Your task to perform on an android device: open app "Yahoo Mail" (install if not already installed) Image 0: 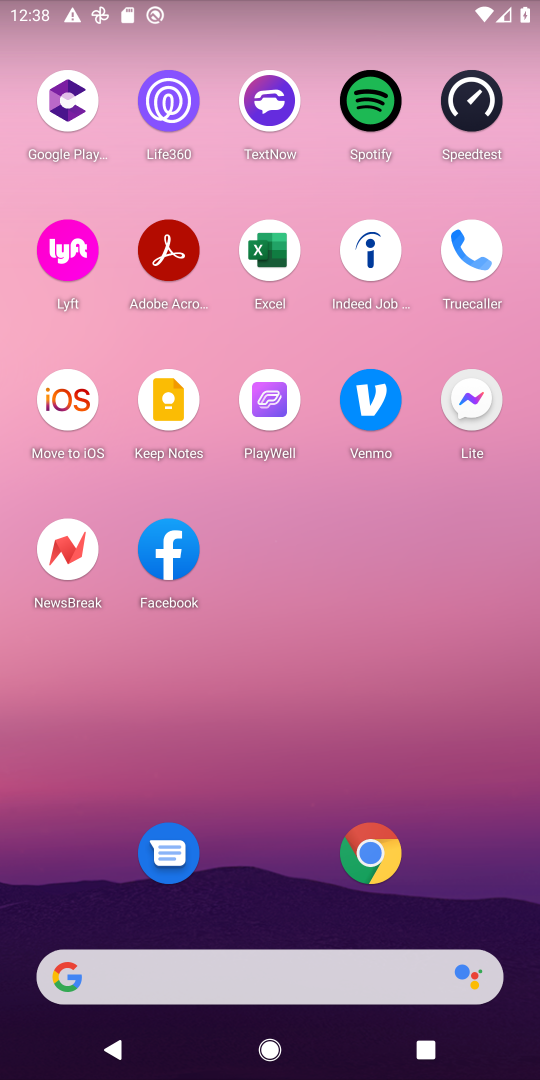
Step 0: drag from (223, 795) to (233, 45)
Your task to perform on an android device: open app "Yahoo Mail" (install if not already installed) Image 1: 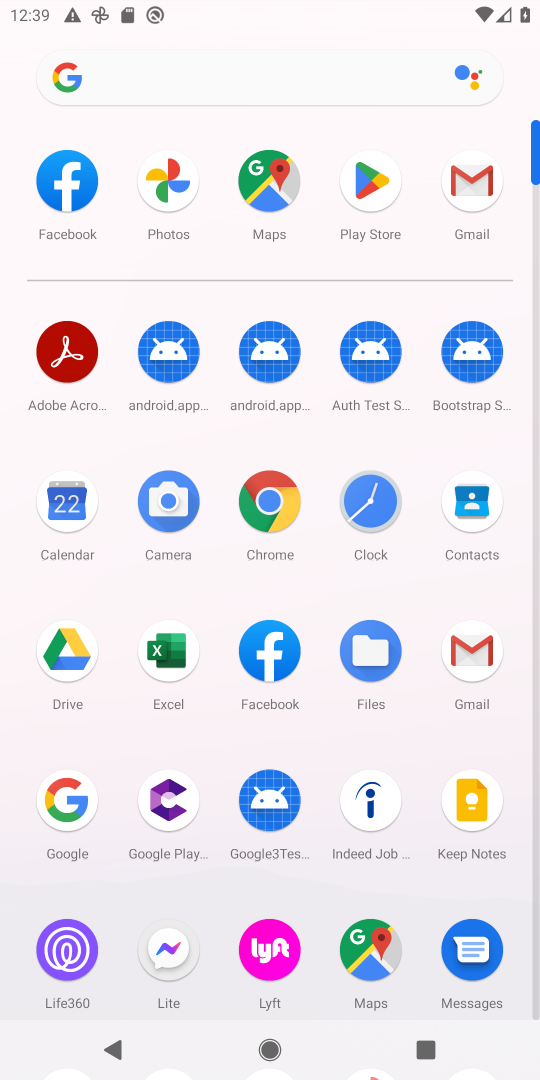
Step 1: click (385, 172)
Your task to perform on an android device: open app "Yahoo Mail" (install if not already installed) Image 2: 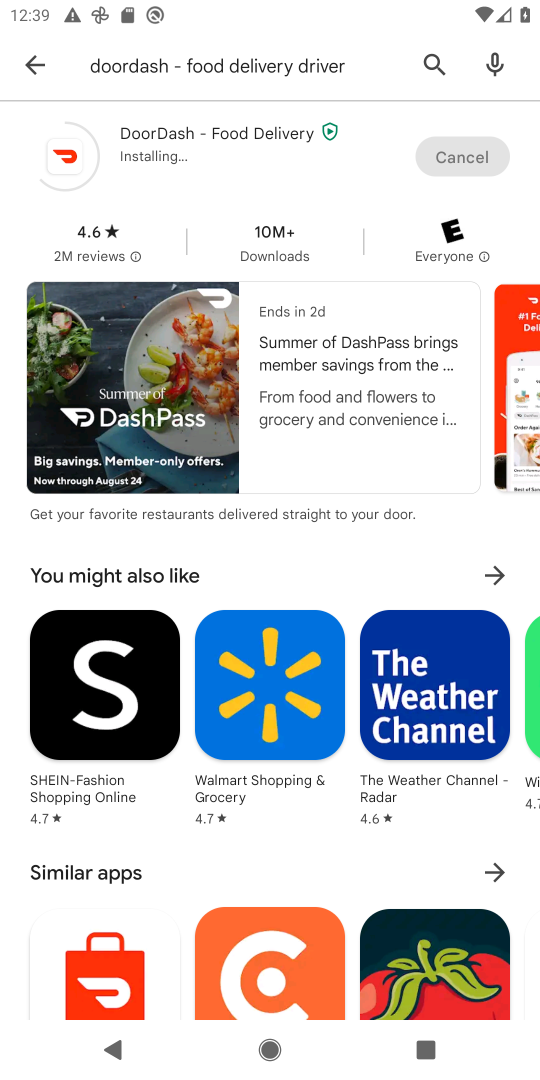
Step 2: click (24, 48)
Your task to perform on an android device: open app "Yahoo Mail" (install if not already installed) Image 3: 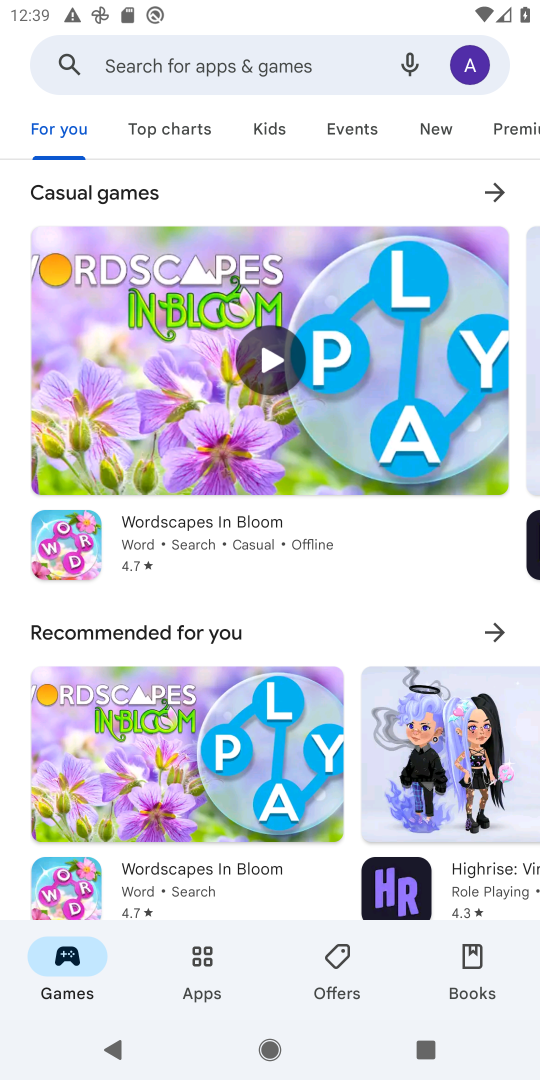
Step 3: click (196, 46)
Your task to perform on an android device: open app "Yahoo Mail" (install if not already installed) Image 4: 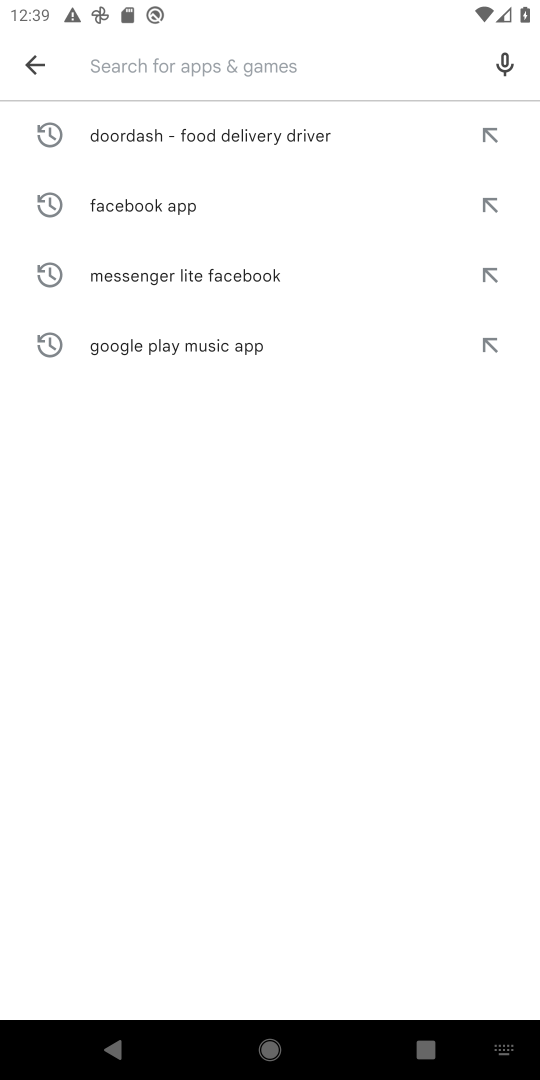
Step 4: type "yahoo mail "
Your task to perform on an android device: open app "Yahoo Mail" (install if not already installed) Image 5: 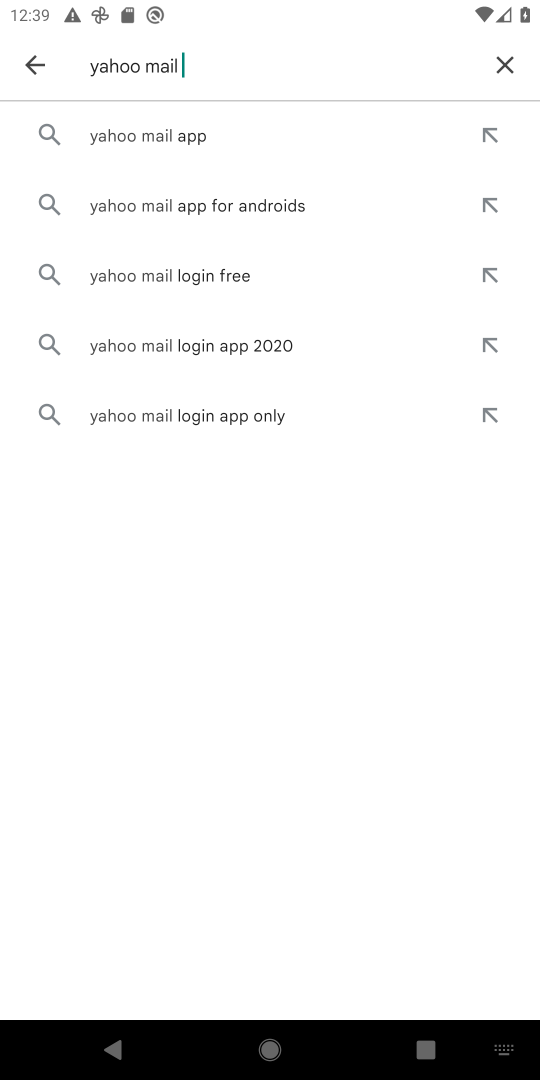
Step 5: click (201, 130)
Your task to perform on an android device: open app "Yahoo Mail" (install if not already installed) Image 6: 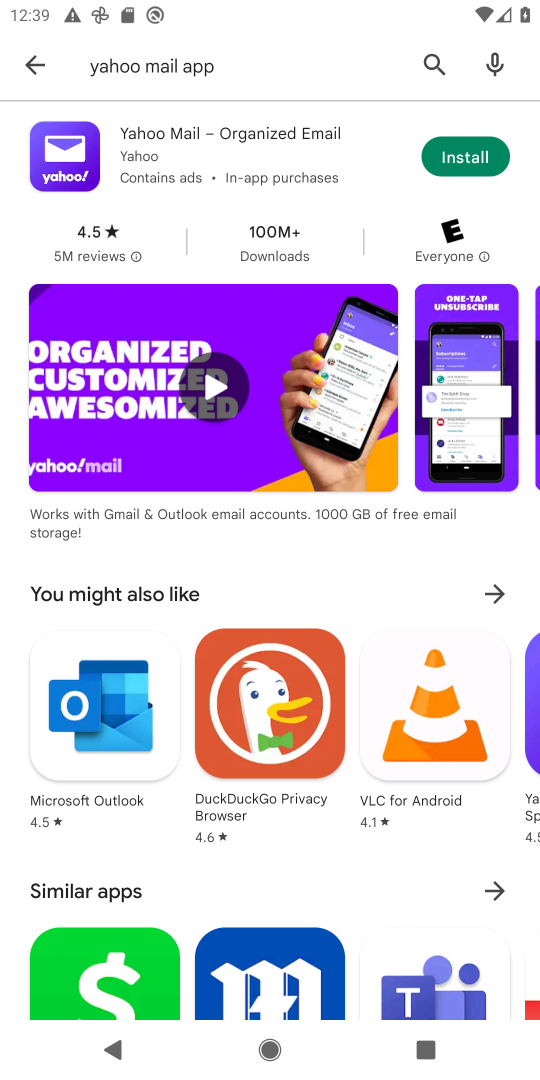
Step 6: click (457, 159)
Your task to perform on an android device: open app "Yahoo Mail" (install if not already installed) Image 7: 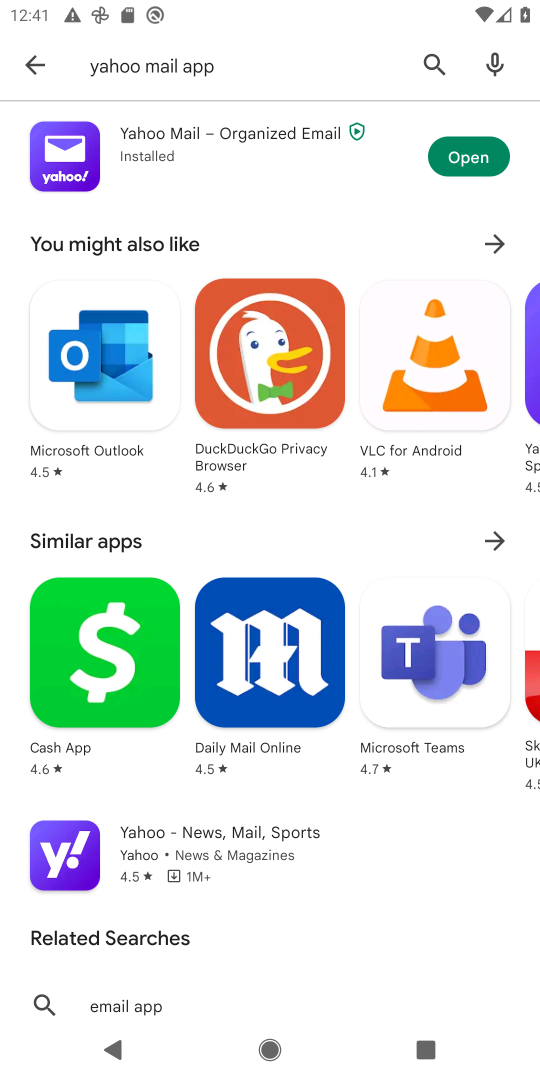
Step 7: click (451, 162)
Your task to perform on an android device: open app "Yahoo Mail" (install if not already installed) Image 8: 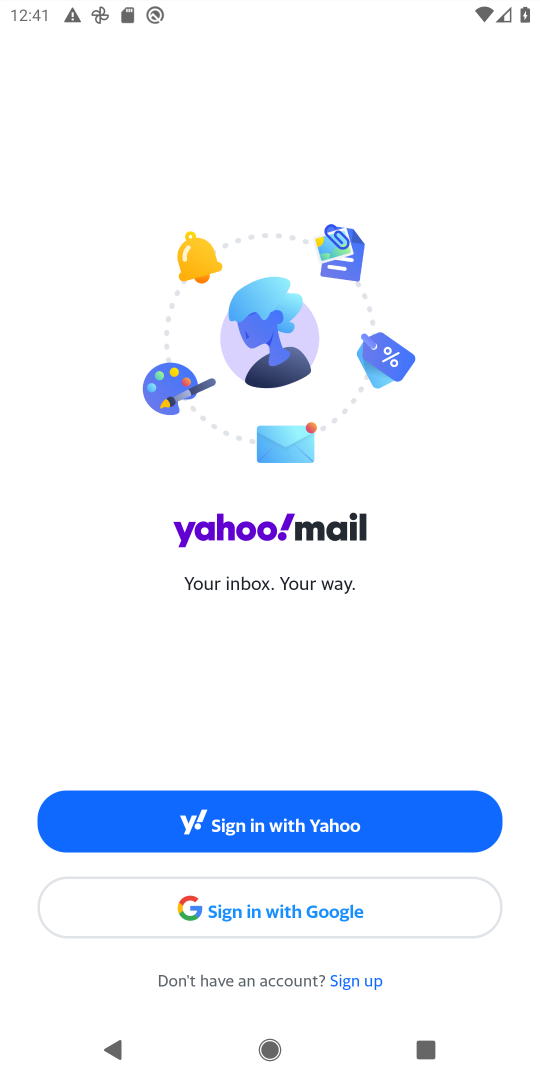
Step 8: task complete